Your task to perform on an android device: toggle translation in the chrome app Image 0: 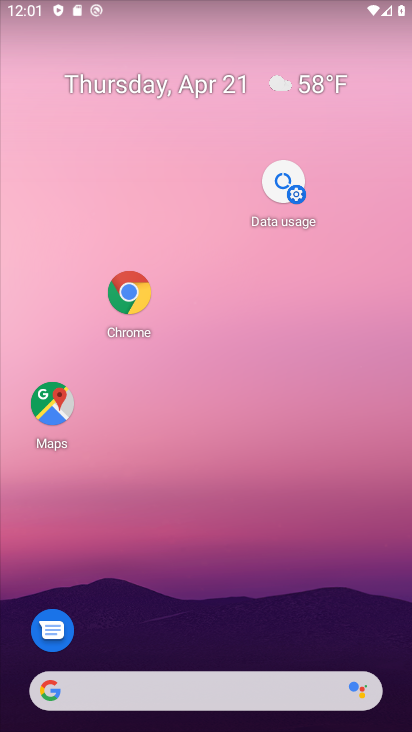
Step 0: click (133, 288)
Your task to perform on an android device: toggle translation in the chrome app Image 1: 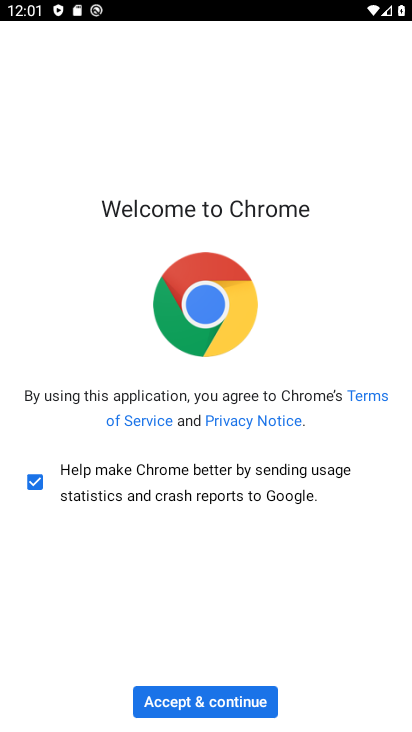
Step 1: click (174, 708)
Your task to perform on an android device: toggle translation in the chrome app Image 2: 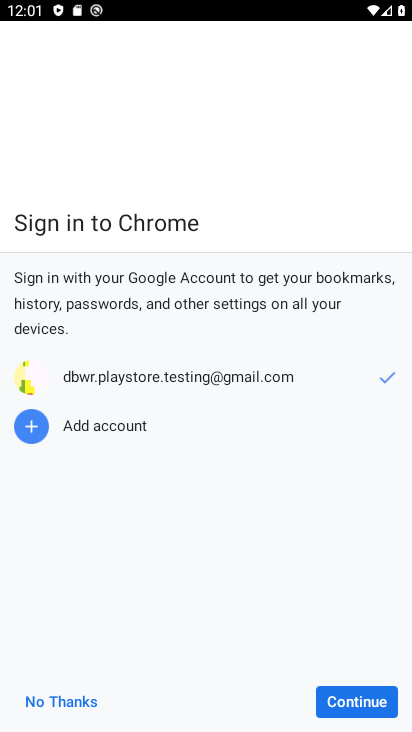
Step 2: click (339, 704)
Your task to perform on an android device: toggle translation in the chrome app Image 3: 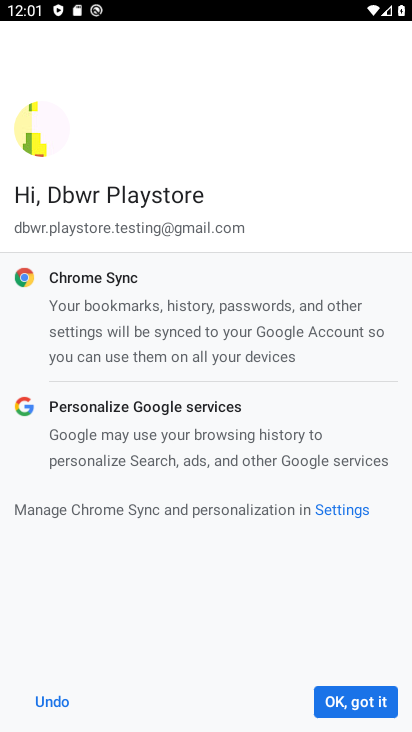
Step 3: click (346, 694)
Your task to perform on an android device: toggle translation in the chrome app Image 4: 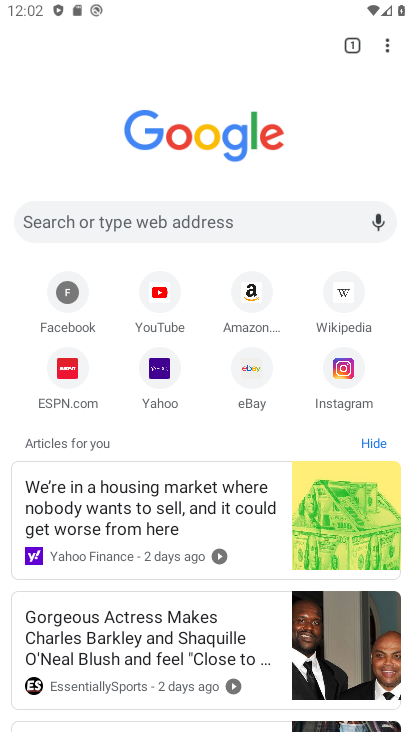
Step 4: click (384, 52)
Your task to perform on an android device: toggle translation in the chrome app Image 5: 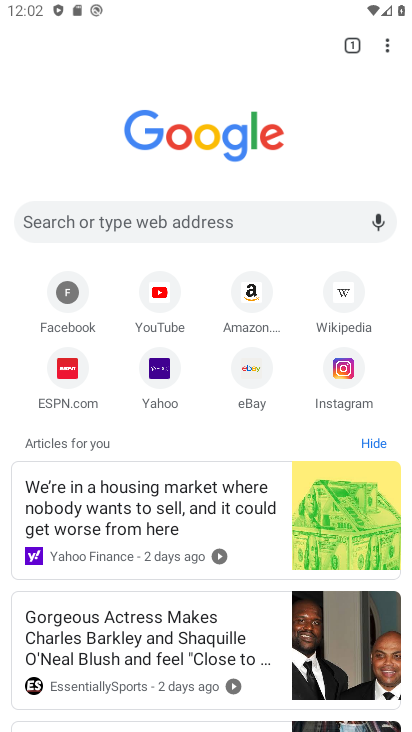
Step 5: click (384, 39)
Your task to perform on an android device: toggle translation in the chrome app Image 6: 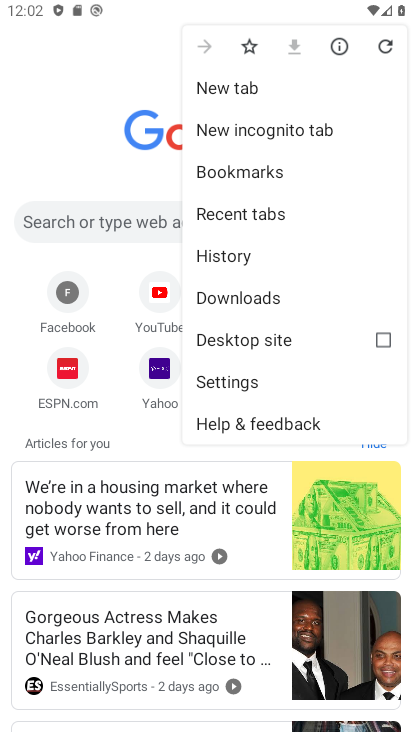
Step 6: click (223, 383)
Your task to perform on an android device: toggle translation in the chrome app Image 7: 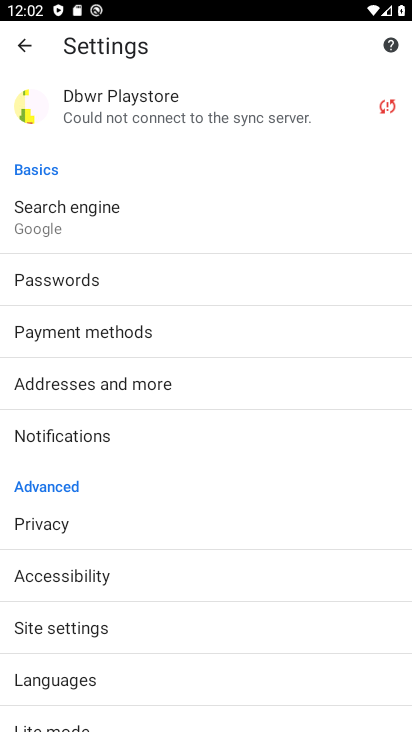
Step 7: click (79, 685)
Your task to perform on an android device: toggle translation in the chrome app Image 8: 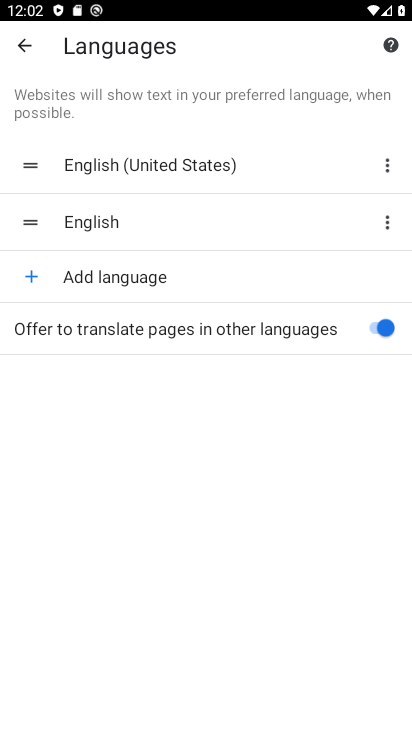
Step 8: click (379, 326)
Your task to perform on an android device: toggle translation in the chrome app Image 9: 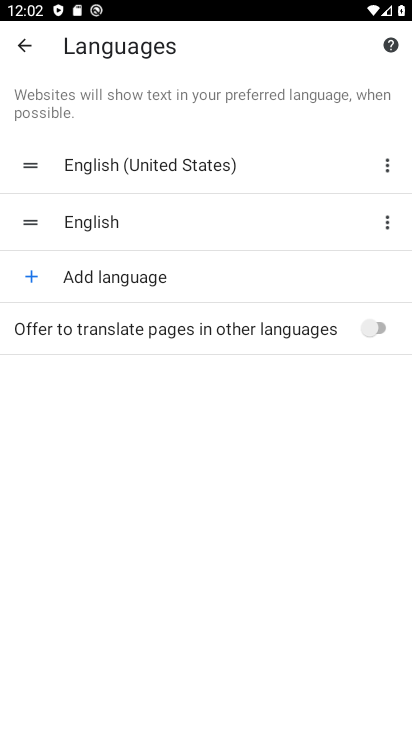
Step 9: task complete